Your task to perform on an android device: Open the Play Movies app and select the watchlist tab. Image 0: 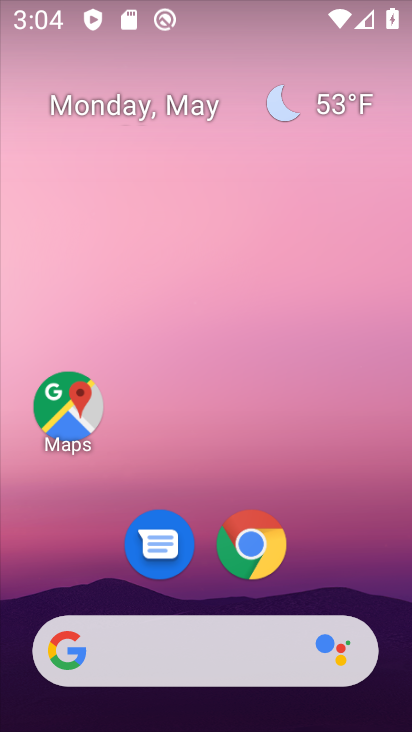
Step 0: drag from (150, 545) to (157, 29)
Your task to perform on an android device: Open the Play Movies app and select the watchlist tab. Image 1: 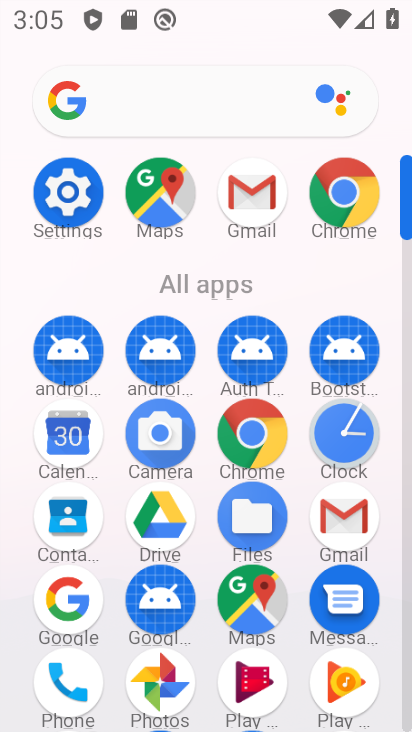
Step 1: click (256, 691)
Your task to perform on an android device: Open the Play Movies app and select the watchlist tab. Image 2: 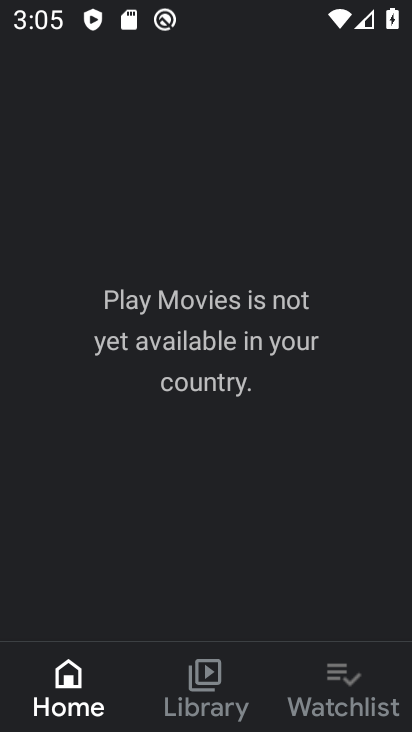
Step 2: click (334, 692)
Your task to perform on an android device: Open the Play Movies app and select the watchlist tab. Image 3: 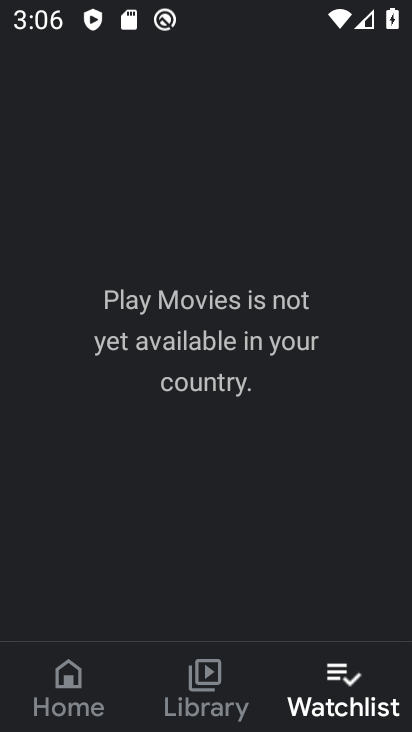
Step 3: task complete